Your task to perform on an android device: Open the calendar app, open the side menu, and click the "Day" option Image 0: 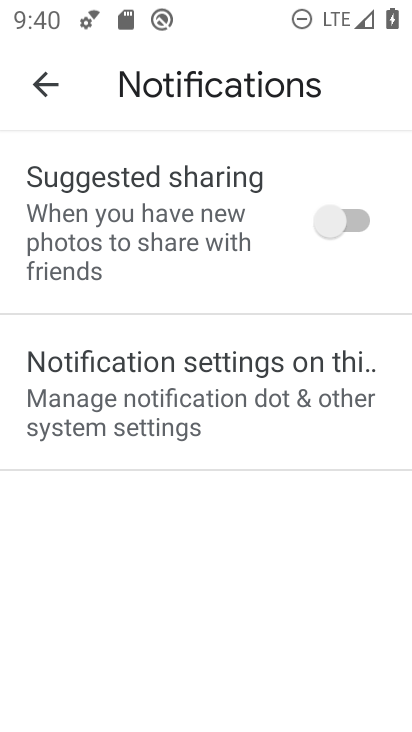
Step 0: press home button
Your task to perform on an android device: Open the calendar app, open the side menu, and click the "Day" option Image 1: 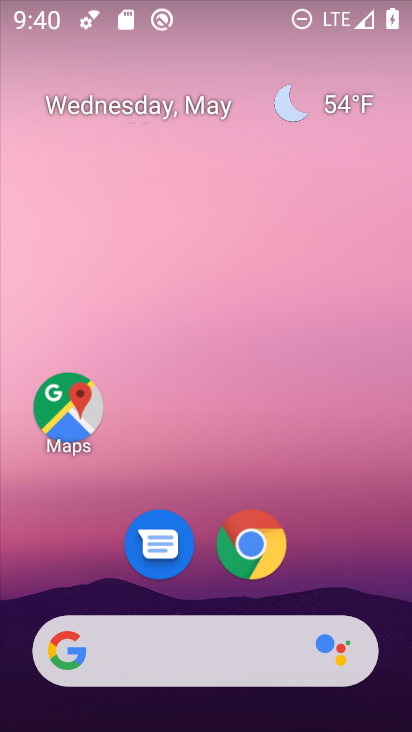
Step 1: click (142, 141)
Your task to perform on an android device: Open the calendar app, open the side menu, and click the "Day" option Image 2: 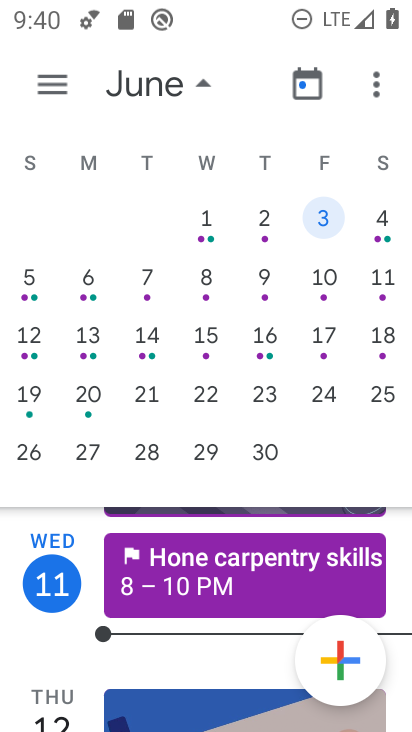
Step 2: click (126, 118)
Your task to perform on an android device: Open the calendar app, open the side menu, and click the "Day" option Image 3: 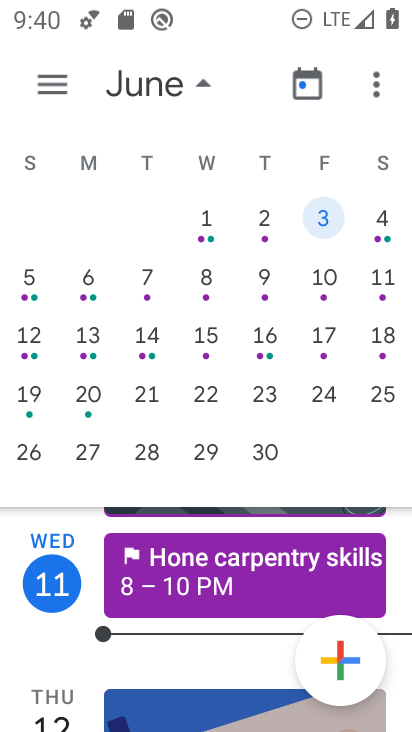
Step 3: click (82, 93)
Your task to perform on an android device: Open the calendar app, open the side menu, and click the "Day" option Image 4: 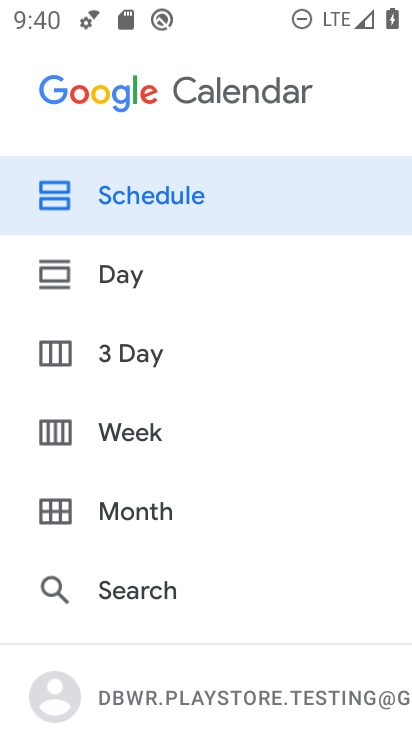
Step 4: click (79, 269)
Your task to perform on an android device: Open the calendar app, open the side menu, and click the "Day" option Image 5: 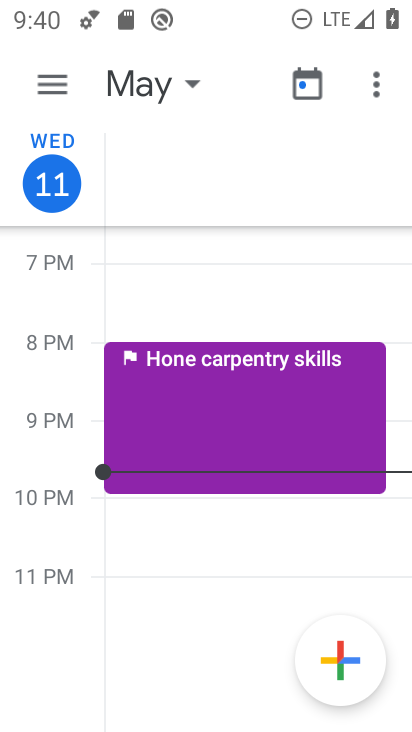
Step 5: task complete